Your task to perform on an android device: Search for vegetarian restaurants on Maps Image 0: 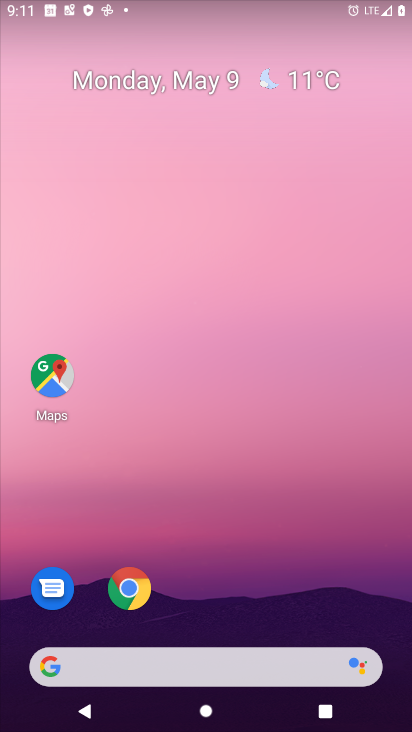
Step 0: drag from (365, 614) to (207, 28)
Your task to perform on an android device: Search for vegetarian restaurants on Maps Image 1: 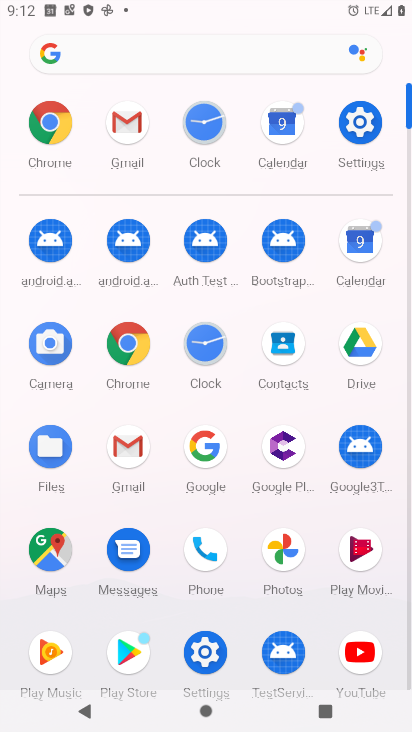
Step 1: click (49, 548)
Your task to perform on an android device: Search for vegetarian restaurants on Maps Image 2: 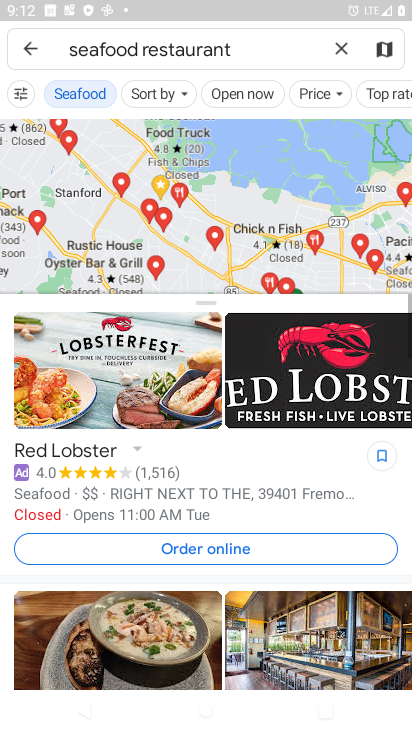
Step 2: click (341, 53)
Your task to perform on an android device: Search for vegetarian restaurants on Maps Image 3: 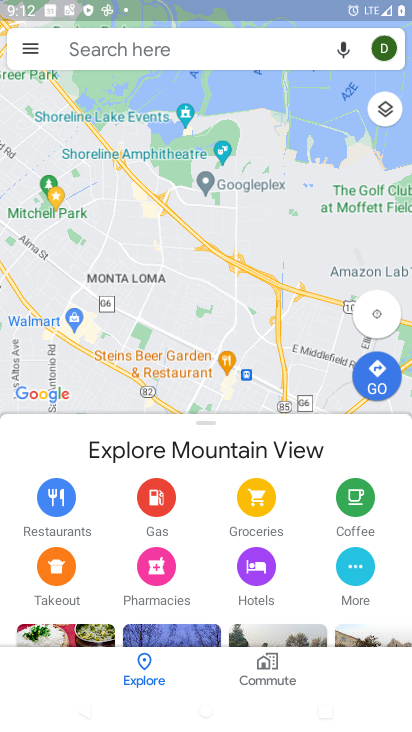
Step 3: click (148, 55)
Your task to perform on an android device: Search for vegetarian restaurants on Maps Image 4: 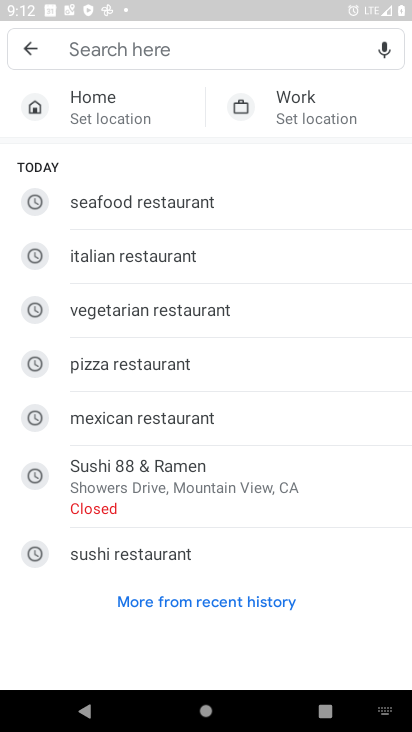
Step 4: click (228, 304)
Your task to perform on an android device: Search for vegetarian restaurants on Maps Image 5: 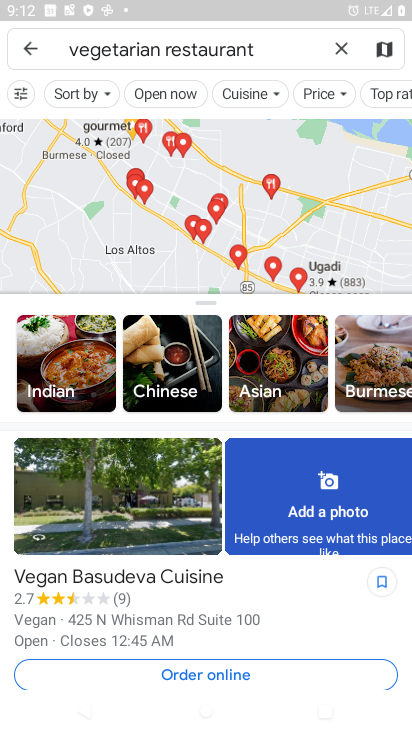
Step 5: task complete